Your task to perform on an android device: Search for amazon basics triple a on bestbuy, select the first entry, add it to the cart, then select checkout. Image 0: 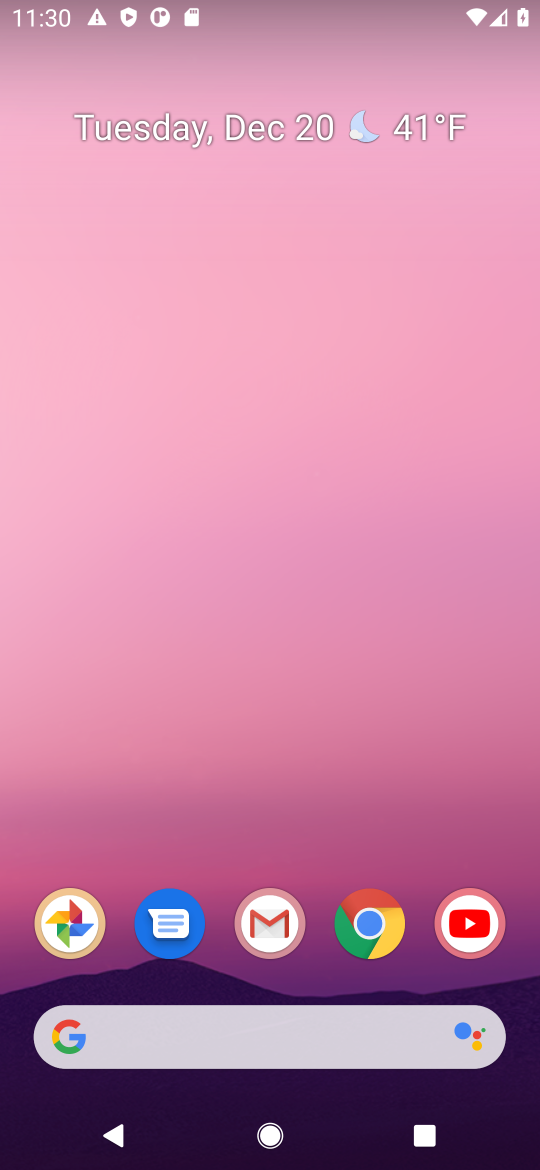
Step 0: click (368, 960)
Your task to perform on an android device: Search for amazon basics triple a on bestbuy, select the first entry, add it to the cart, then select checkout. Image 1: 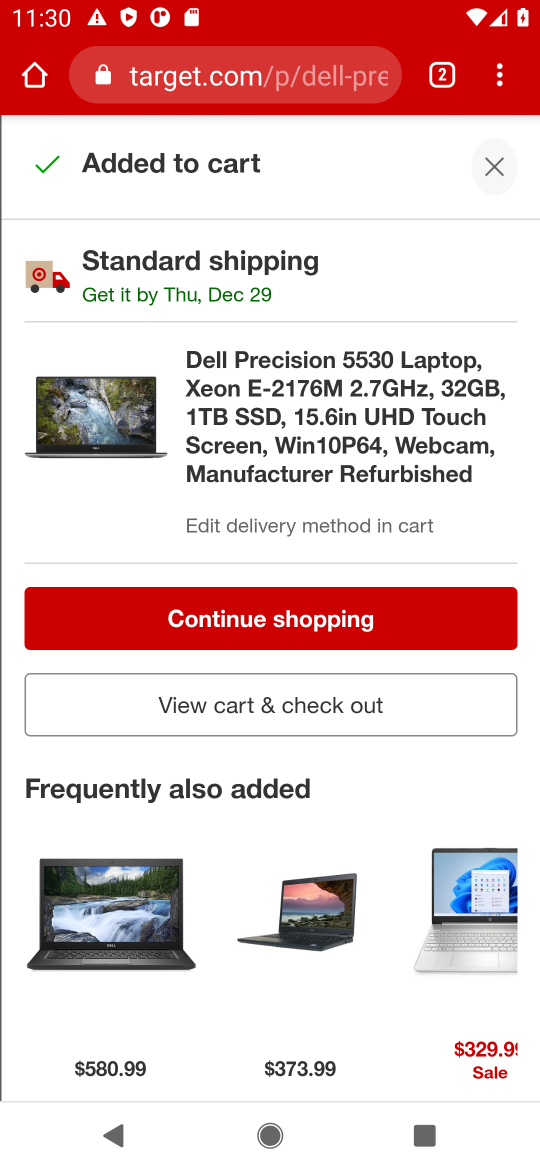
Step 1: click (279, 89)
Your task to perform on an android device: Search for amazon basics triple a on bestbuy, select the first entry, add it to the cart, then select checkout. Image 2: 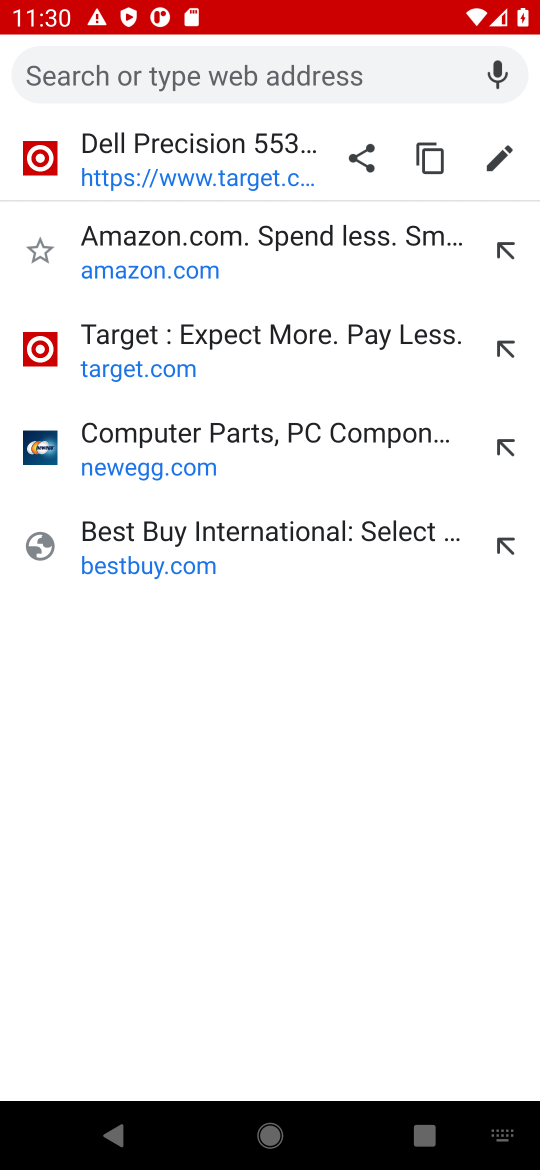
Step 2: type "bestbuy"
Your task to perform on an android device: Search for amazon basics triple a on bestbuy, select the first entry, add it to the cart, then select checkout. Image 3: 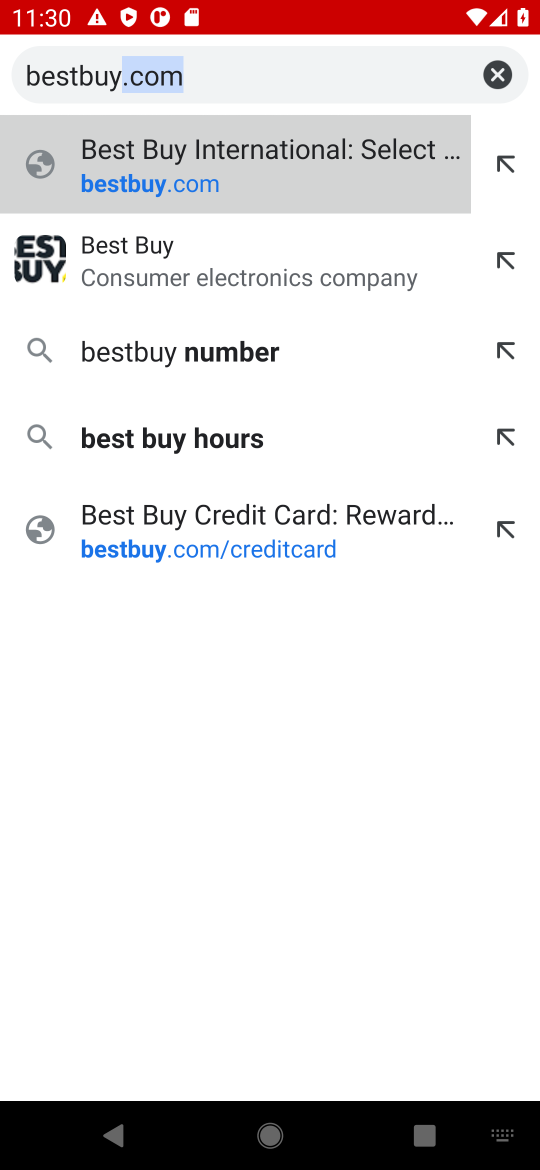
Step 3: click (259, 183)
Your task to perform on an android device: Search for amazon basics triple a on bestbuy, select the first entry, add it to the cart, then select checkout. Image 4: 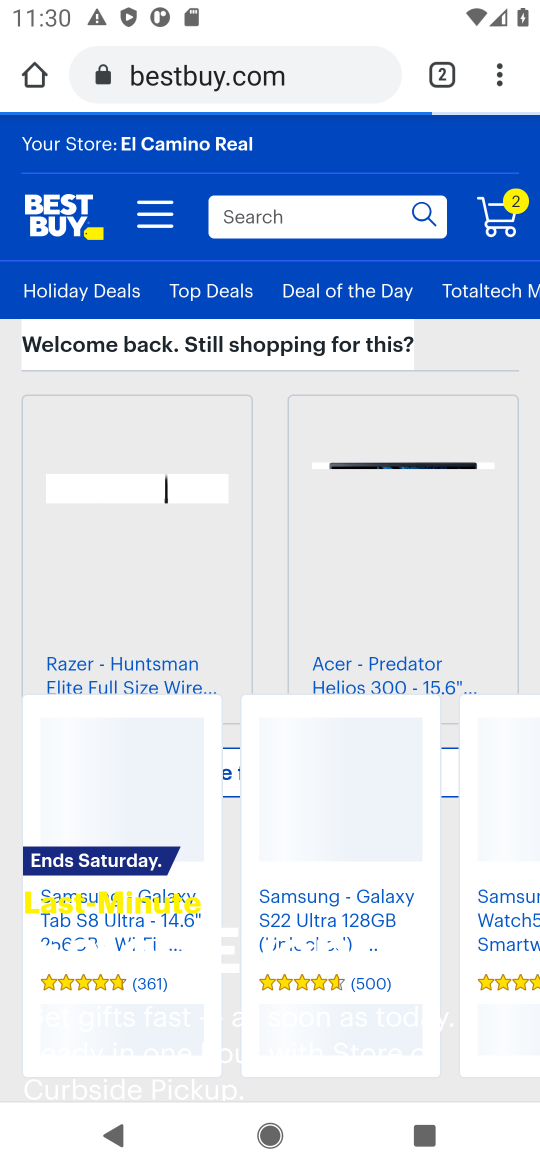
Step 4: click (254, 213)
Your task to perform on an android device: Search for amazon basics triple a on bestbuy, select the first entry, add it to the cart, then select checkout. Image 5: 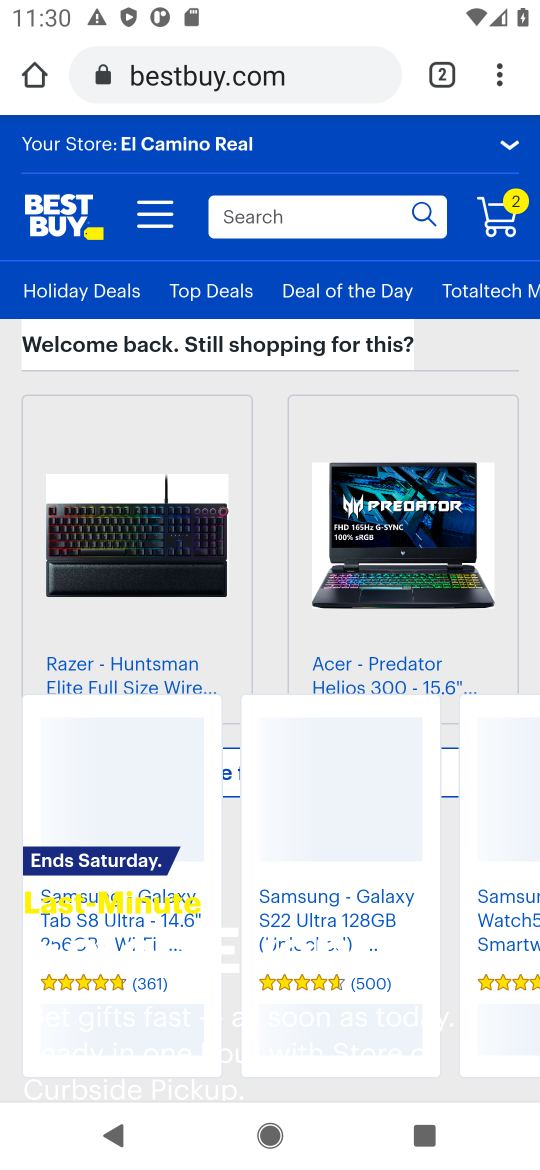
Step 5: type "amazon basic triple a"
Your task to perform on an android device: Search for amazon basics triple a on bestbuy, select the first entry, add it to the cart, then select checkout. Image 6: 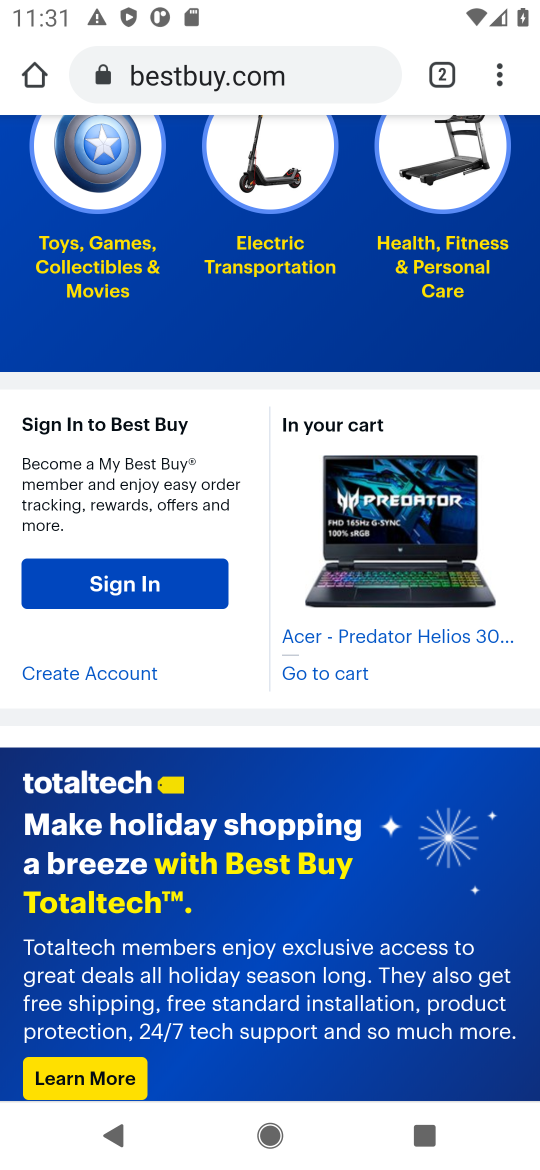
Step 6: task complete